Your task to perform on an android device: toggle priority inbox in the gmail app Image 0: 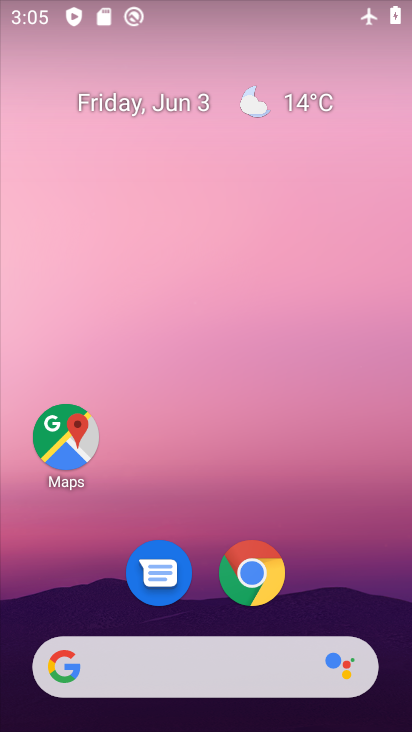
Step 0: drag from (236, 464) to (261, 292)
Your task to perform on an android device: toggle priority inbox in the gmail app Image 1: 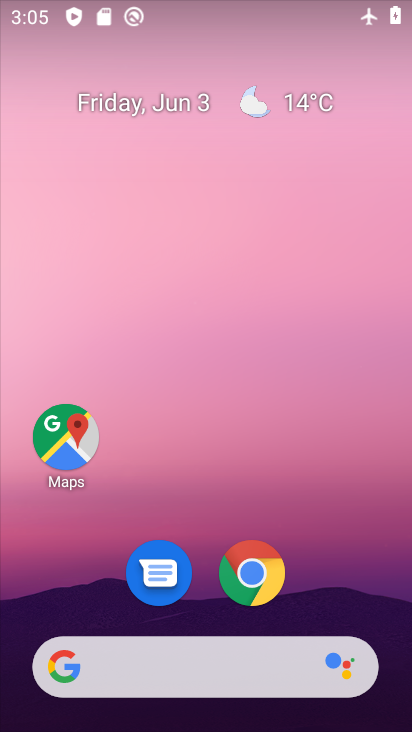
Step 1: drag from (228, 570) to (236, 212)
Your task to perform on an android device: toggle priority inbox in the gmail app Image 2: 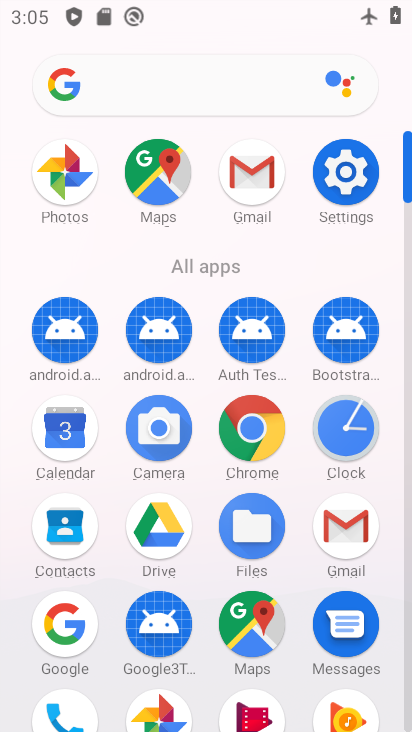
Step 2: click (337, 533)
Your task to perform on an android device: toggle priority inbox in the gmail app Image 3: 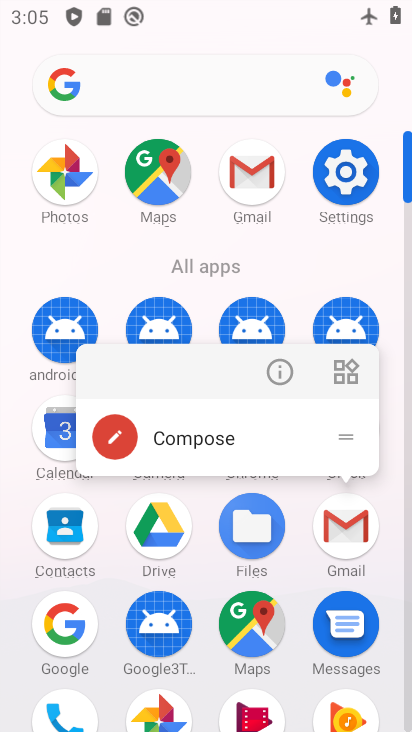
Step 3: click (348, 537)
Your task to perform on an android device: toggle priority inbox in the gmail app Image 4: 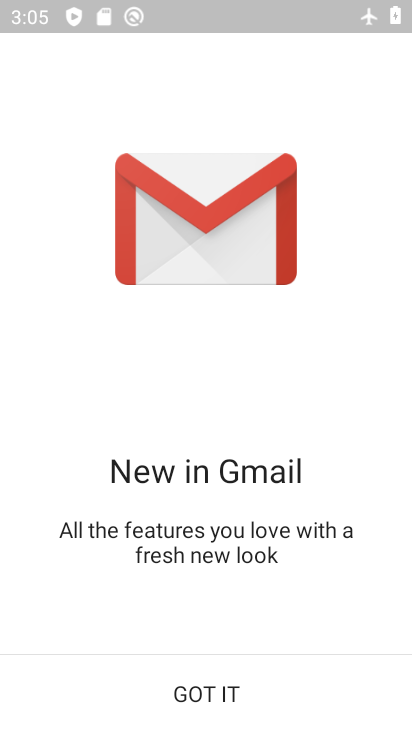
Step 4: click (180, 689)
Your task to perform on an android device: toggle priority inbox in the gmail app Image 5: 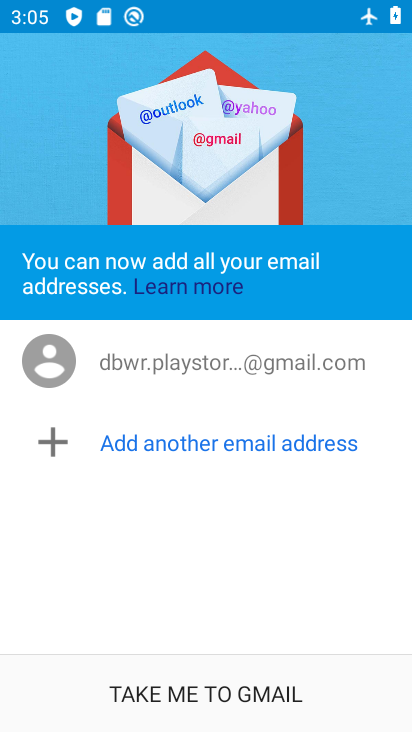
Step 5: click (183, 688)
Your task to perform on an android device: toggle priority inbox in the gmail app Image 6: 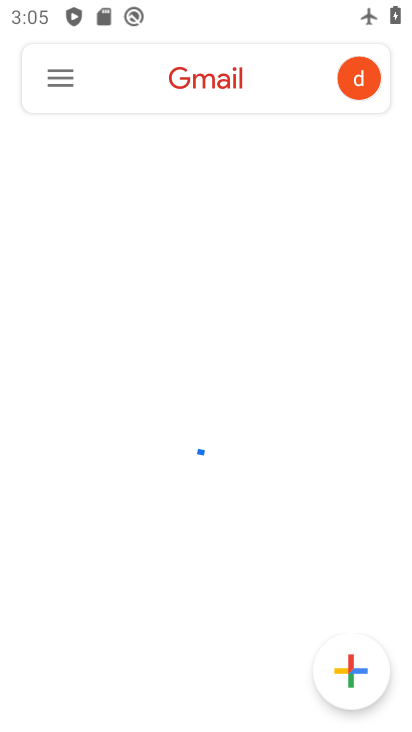
Step 6: click (59, 74)
Your task to perform on an android device: toggle priority inbox in the gmail app Image 7: 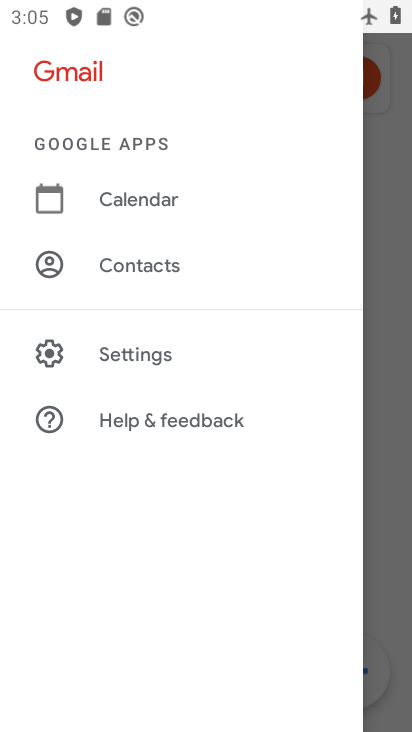
Step 7: click (161, 360)
Your task to perform on an android device: toggle priority inbox in the gmail app Image 8: 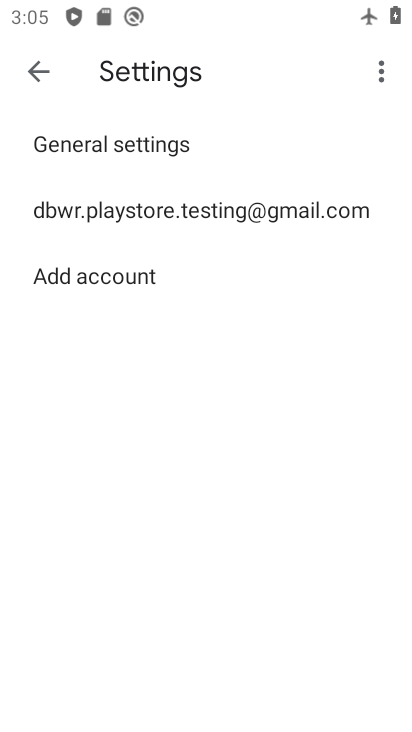
Step 8: click (178, 213)
Your task to perform on an android device: toggle priority inbox in the gmail app Image 9: 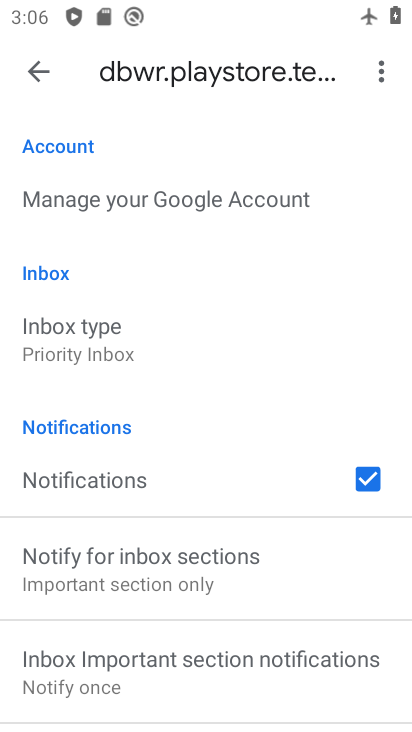
Step 9: click (126, 334)
Your task to perform on an android device: toggle priority inbox in the gmail app Image 10: 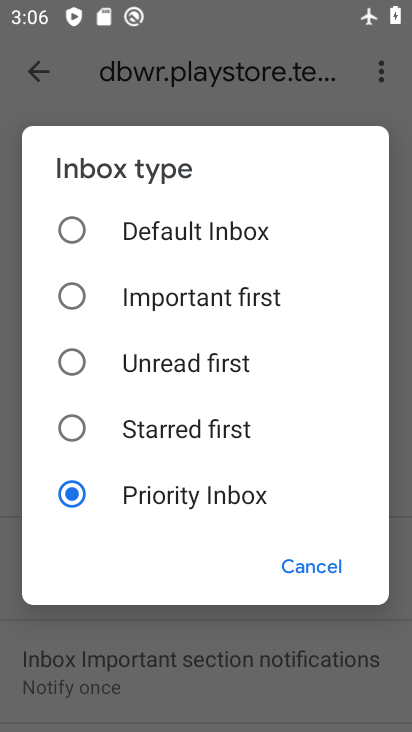
Step 10: click (121, 295)
Your task to perform on an android device: toggle priority inbox in the gmail app Image 11: 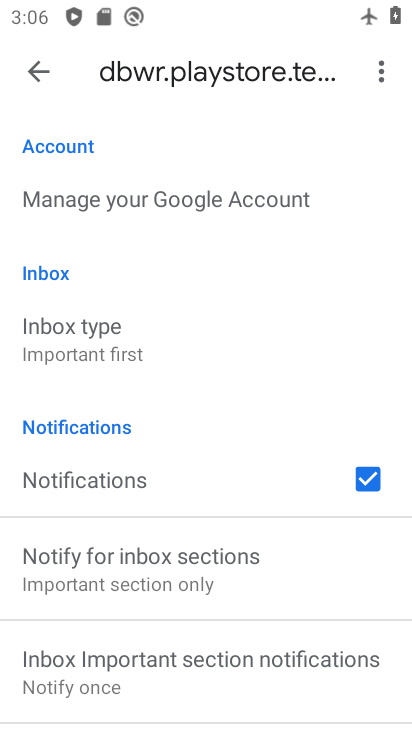
Step 11: task complete